Your task to perform on an android device: Open settings Image 0: 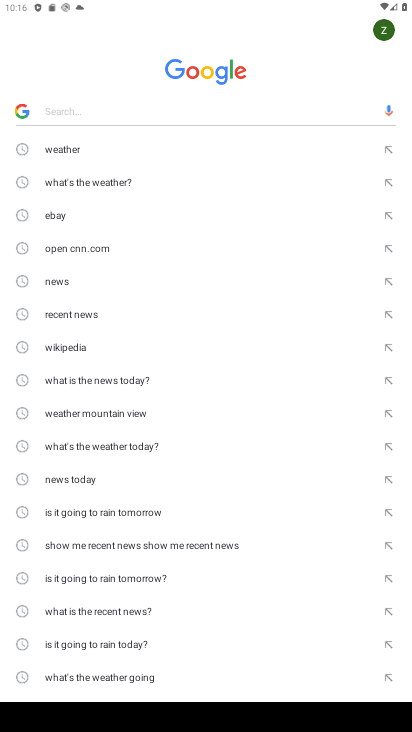
Step 0: task complete